Your task to perform on an android device: Toggle the flashlight Image 0: 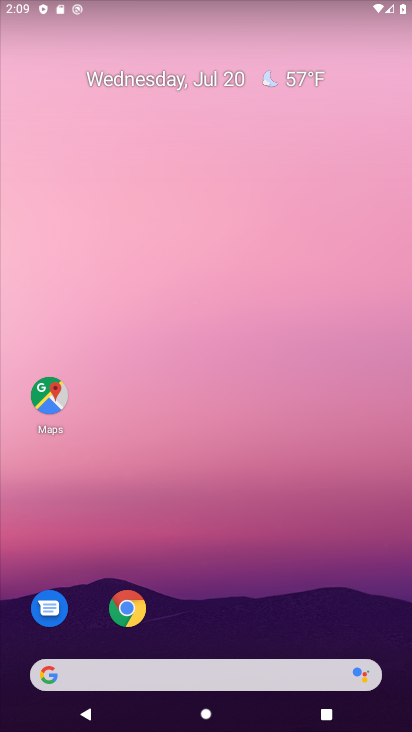
Step 0: press home button
Your task to perform on an android device: Toggle the flashlight Image 1: 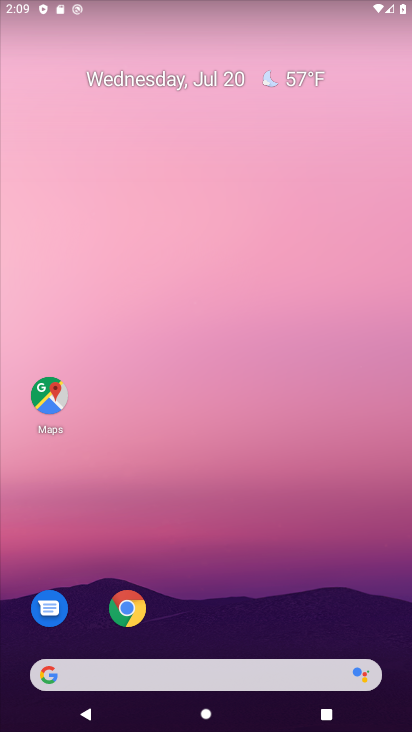
Step 1: drag from (236, 624) to (142, 106)
Your task to perform on an android device: Toggle the flashlight Image 2: 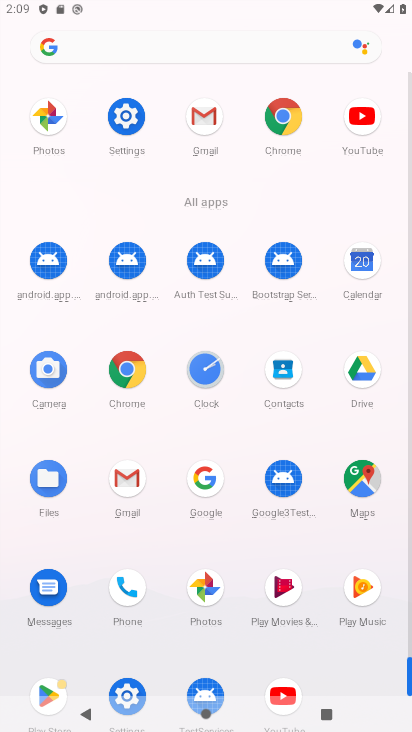
Step 2: click (114, 115)
Your task to perform on an android device: Toggle the flashlight Image 3: 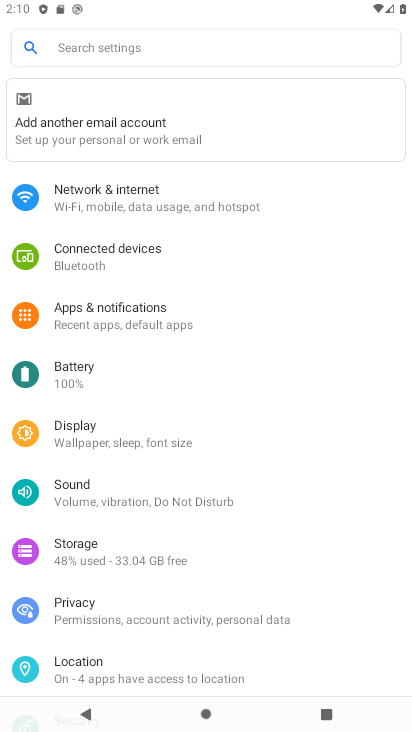
Step 3: click (133, 41)
Your task to perform on an android device: Toggle the flashlight Image 4: 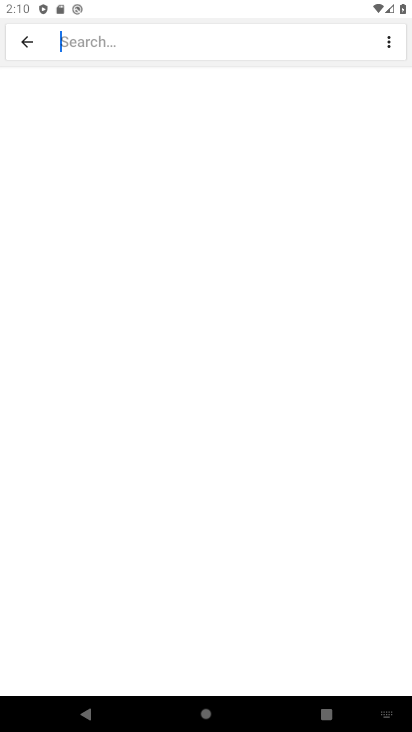
Step 4: type "flashlight"
Your task to perform on an android device: Toggle the flashlight Image 5: 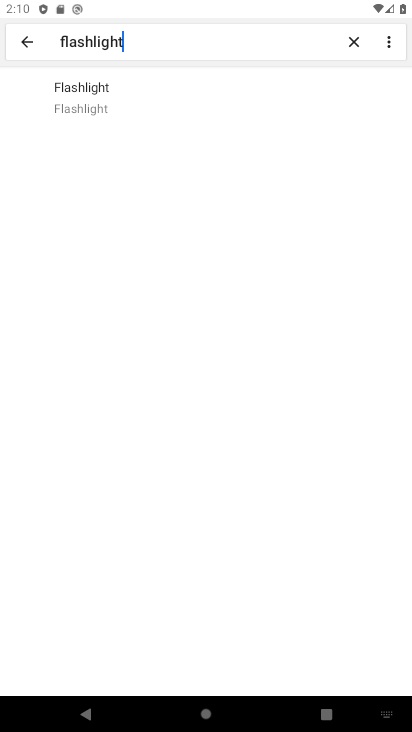
Step 5: click (59, 89)
Your task to perform on an android device: Toggle the flashlight Image 6: 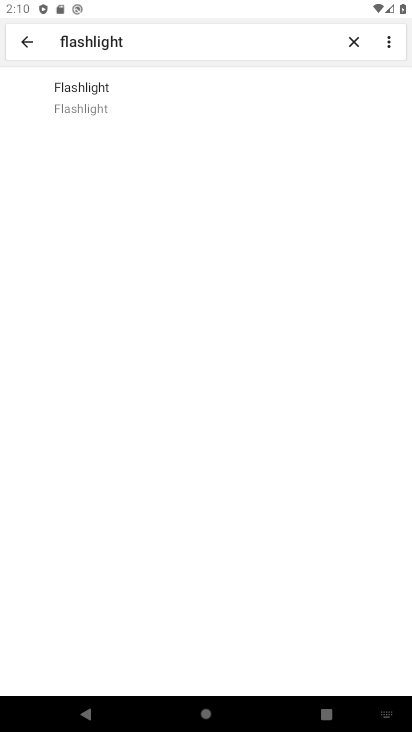
Step 6: click (55, 99)
Your task to perform on an android device: Toggle the flashlight Image 7: 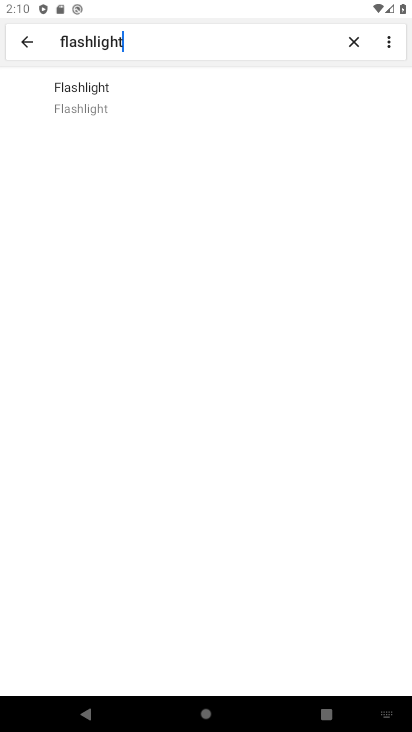
Step 7: task complete